Your task to perform on an android device: Go to Google maps Image 0: 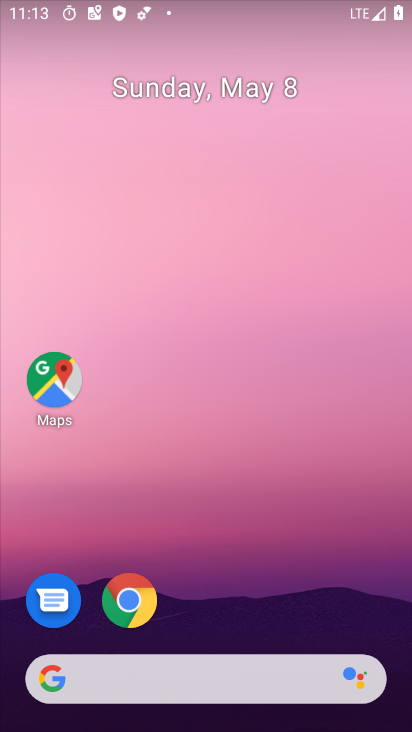
Step 0: click (56, 382)
Your task to perform on an android device: Go to Google maps Image 1: 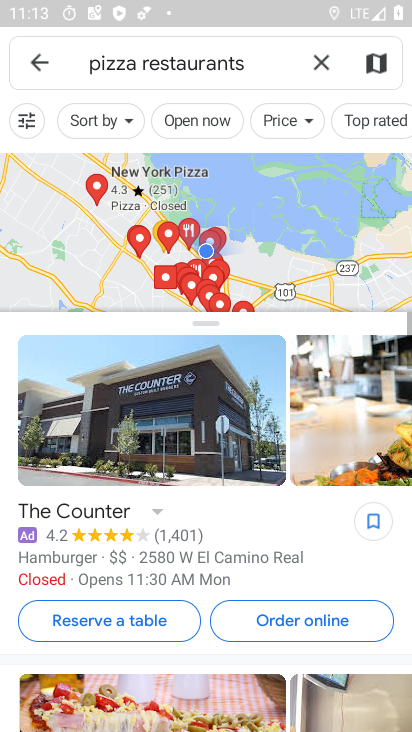
Step 1: task complete